Your task to perform on an android device: find photos in the google photos app Image 0: 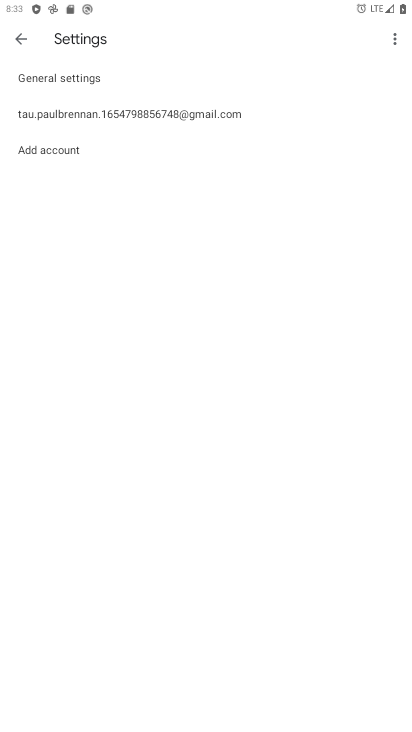
Step 0: click (19, 34)
Your task to perform on an android device: find photos in the google photos app Image 1: 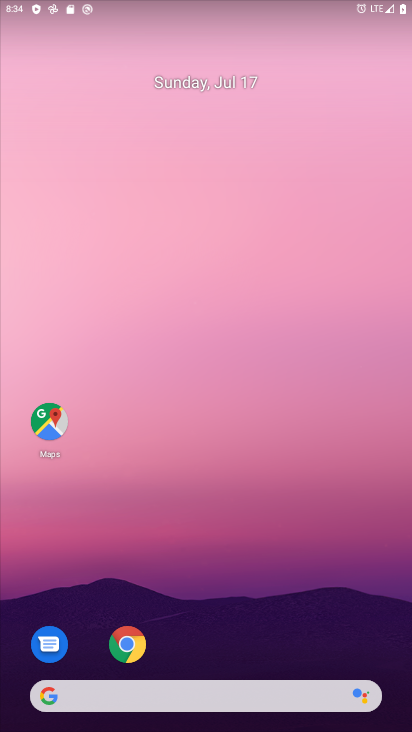
Step 1: drag from (197, 639) to (173, 215)
Your task to perform on an android device: find photos in the google photos app Image 2: 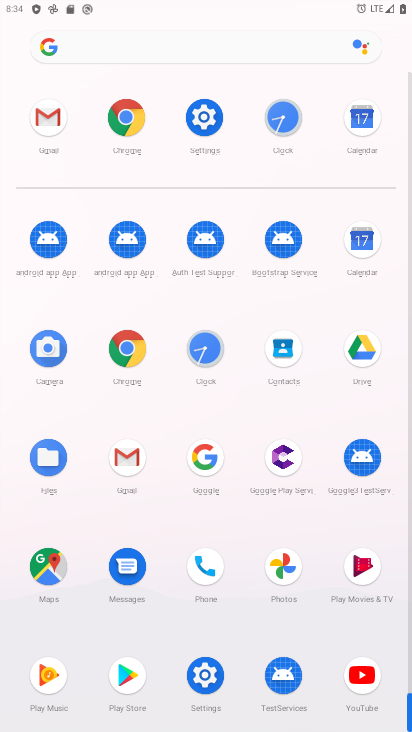
Step 2: click (282, 562)
Your task to perform on an android device: find photos in the google photos app Image 3: 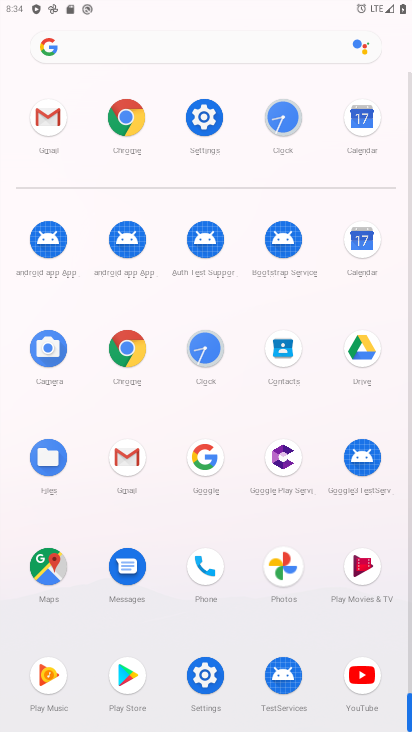
Step 3: click (282, 562)
Your task to perform on an android device: find photos in the google photos app Image 4: 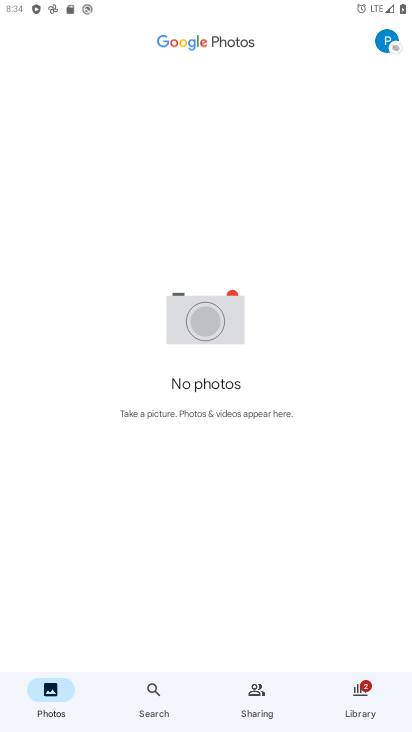
Step 4: task complete